Your task to perform on an android device: turn vacation reply on in the gmail app Image 0: 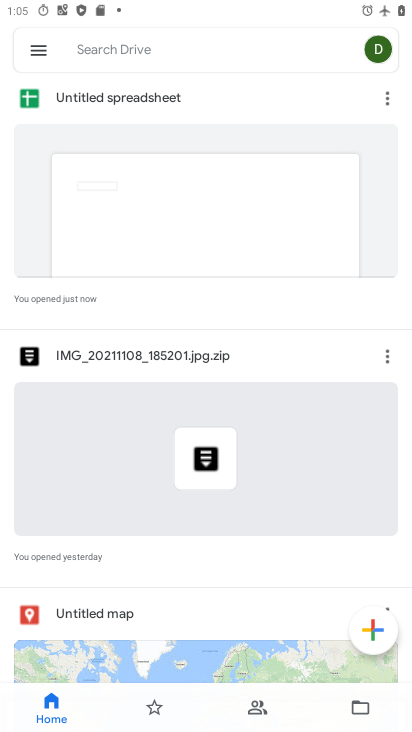
Step 0: press home button
Your task to perform on an android device: turn vacation reply on in the gmail app Image 1: 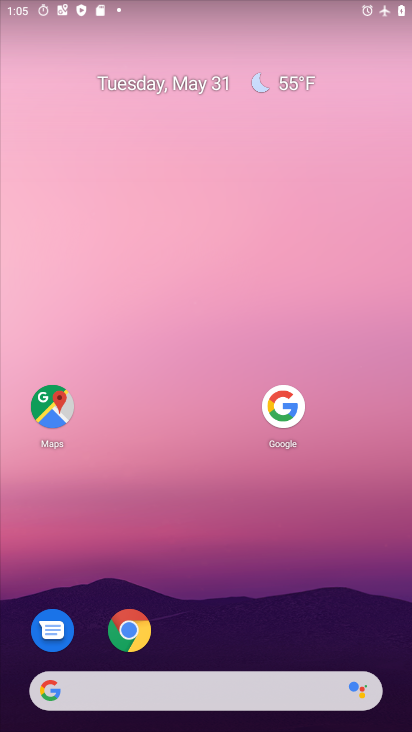
Step 1: drag from (187, 698) to (287, 59)
Your task to perform on an android device: turn vacation reply on in the gmail app Image 2: 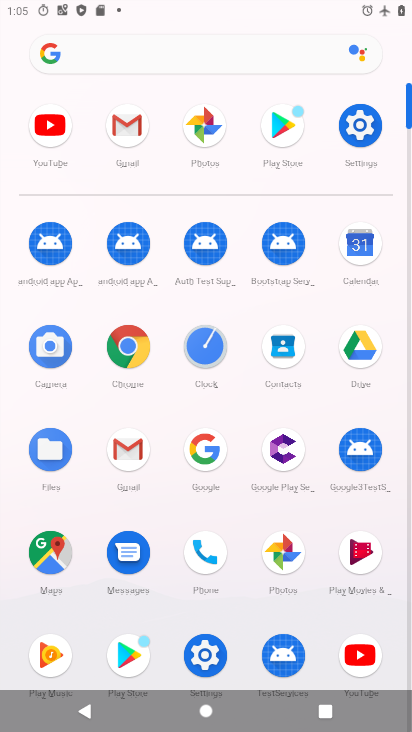
Step 2: click (133, 125)
Your task to perform on an android device: turn vacation reply on in the gmail app Image 3: 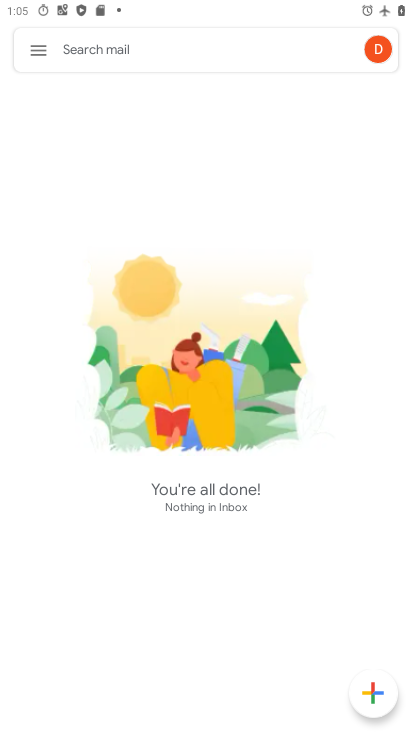
Step 3: click (47, 48)
Your task to perform on an android device: turn vacation reply on in the gmail app Image 4: 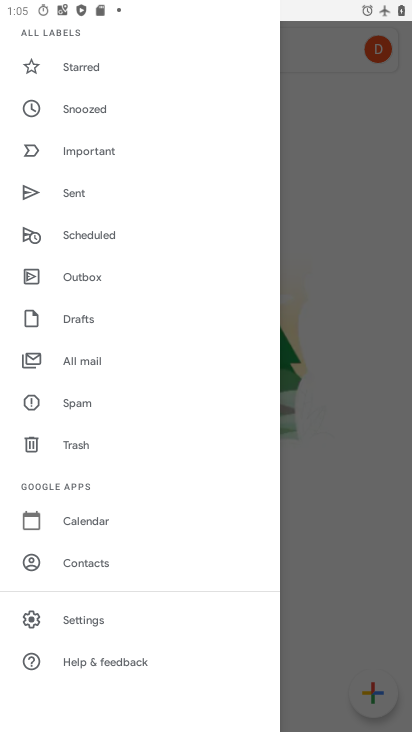
Step 4: click (98, 620)
Your task to perform on an android device: turn vacation reply on in the gmail app Image 5: 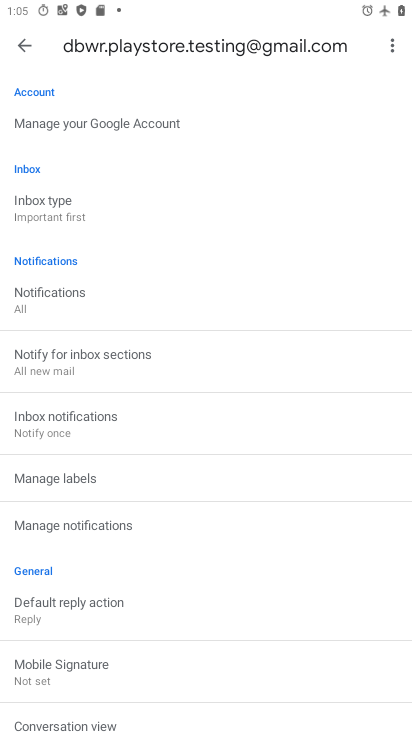
Step 5: drag from (236, 569) to (247, 152)
Your task to perform on an android device: turn vacation reply on in the gmail app Image 6: 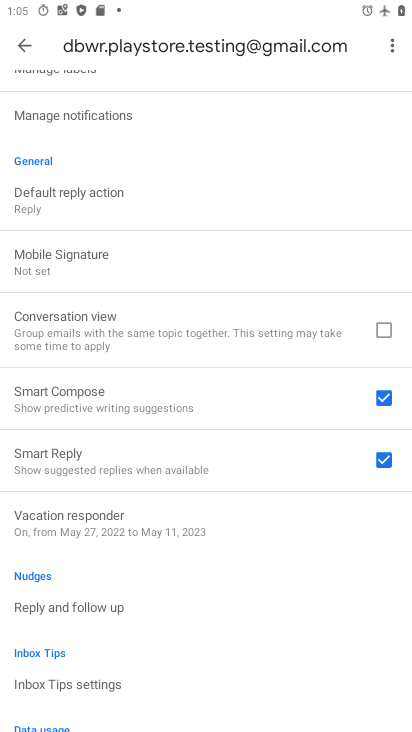
Step 6: click (77, 514)
Your task to perform on an android device: turn vacation reply on in the gmail app Image 7: 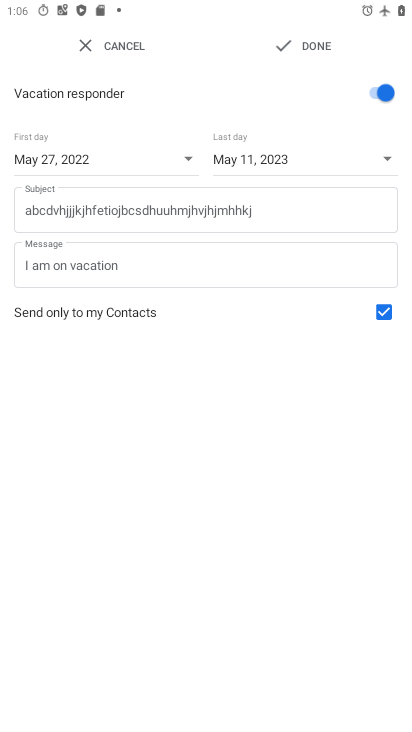
Step 7: task complete